Your task to perform on an android device: Go to Maps Image 0: 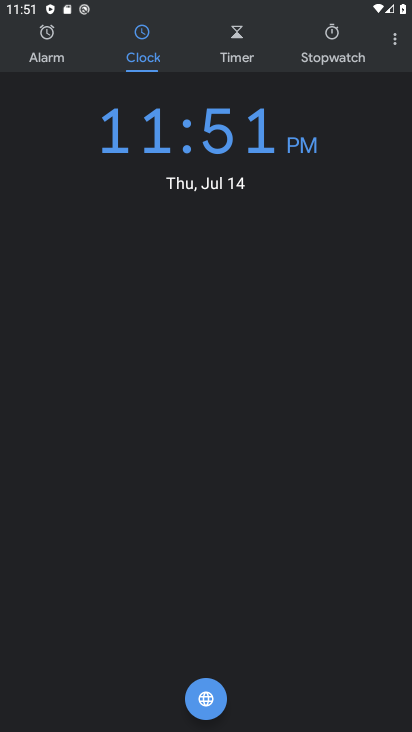
Step 0: press home button
Your task to perform on an android device: Go to Maps Image 1: 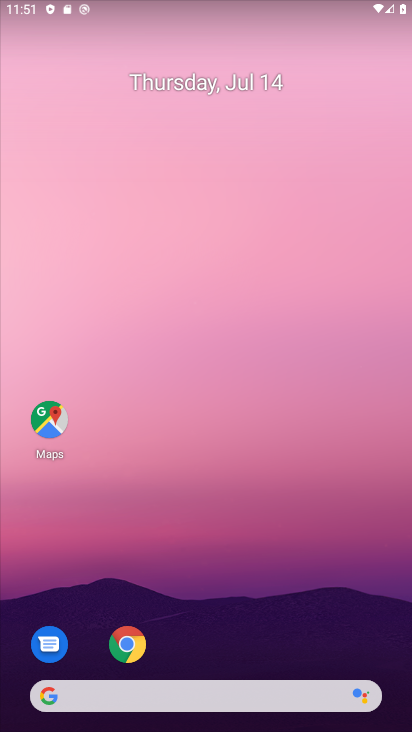
Step 1: drag from (199, 666) to (114, 37)
Your task to perform on an android device: Go to Maps Image 2: 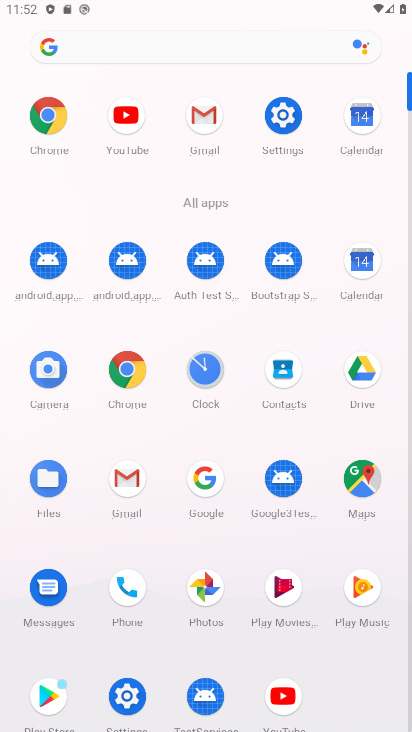
Step 2: click (367, 486)
Your task to perform on an android device: Go to Maps Image 3: 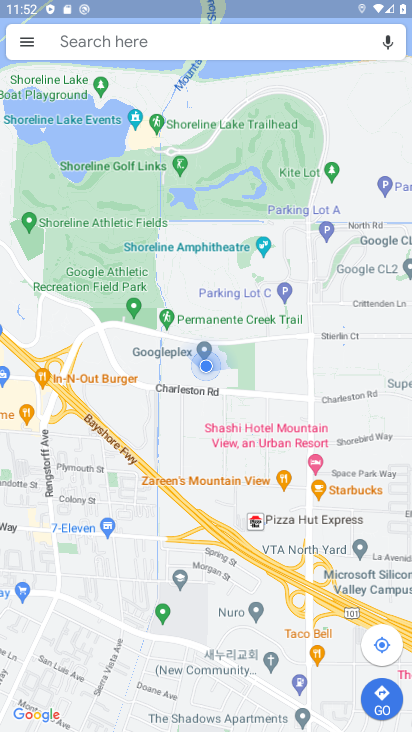
Step 3: task complete